Your task to perform on an android device: Open the web browser Image 0: 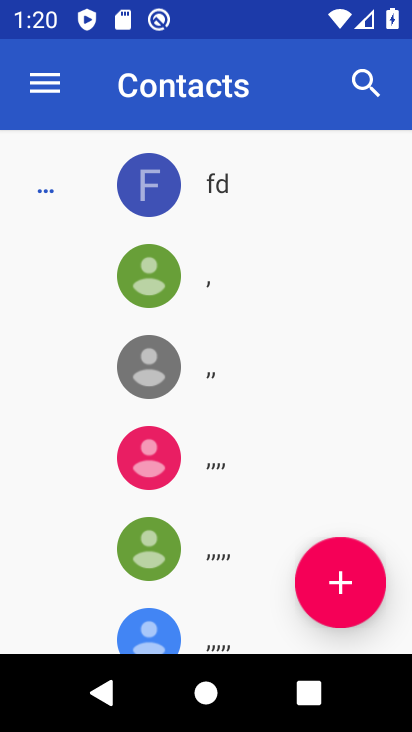
Step 0: press home button
Your task to perform on an android device: Open the web browser Image 1: 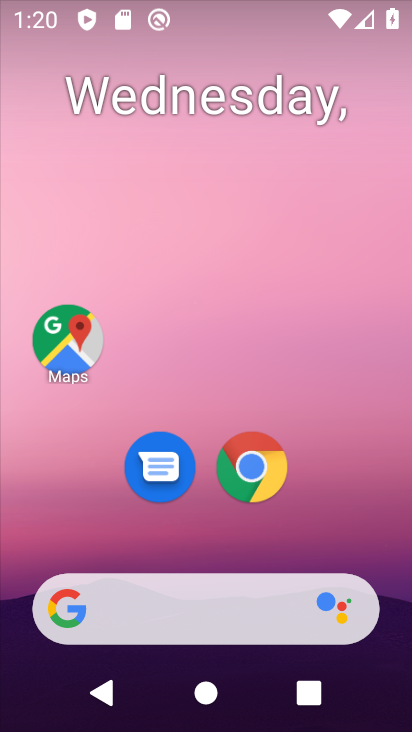
Step 1: click (253, 469)
Your task to perform on an android device: Open the web browser Image 2: 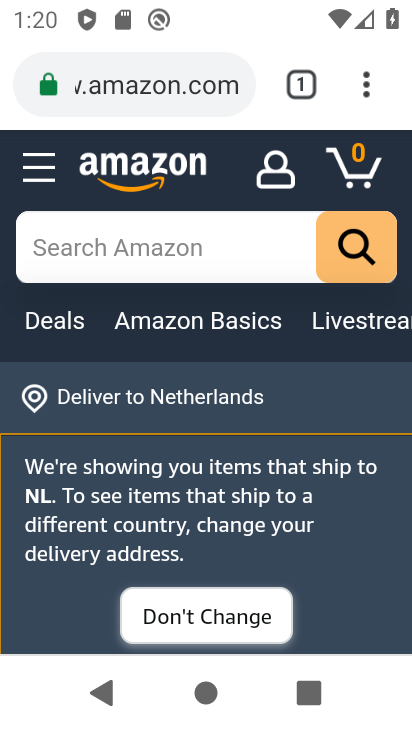
Step 2: task complete